Your task to perform on an android device: check android version Image 0: 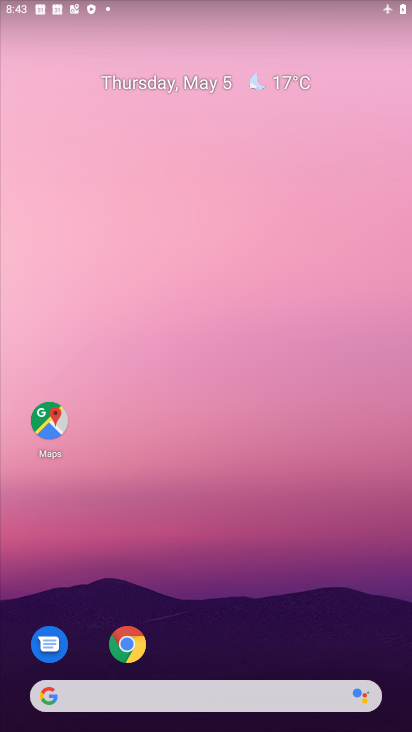
Step 0: drag from (196, 653) to (217, 149)
Your task to perform on an android device: check android version Image 1: 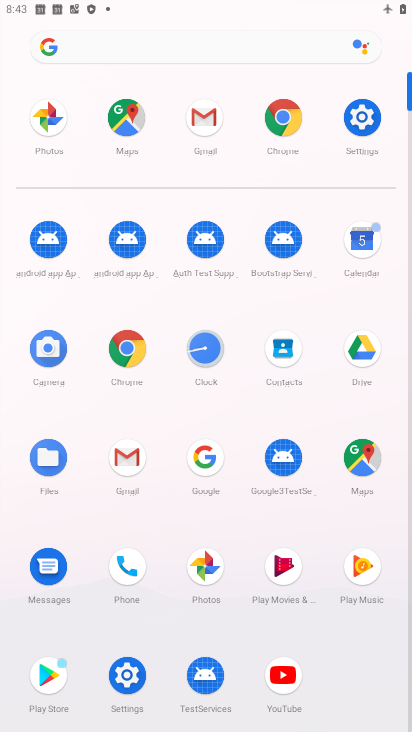
Step 1: click (128, 676)
Your task to perform on an android device: check android version Image 2: 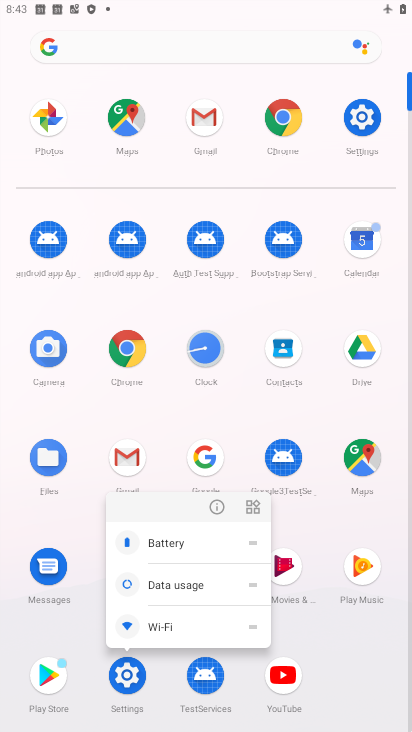
Step 2: click (209, 505)
Your task to perform on an android device: check android version Image 3: 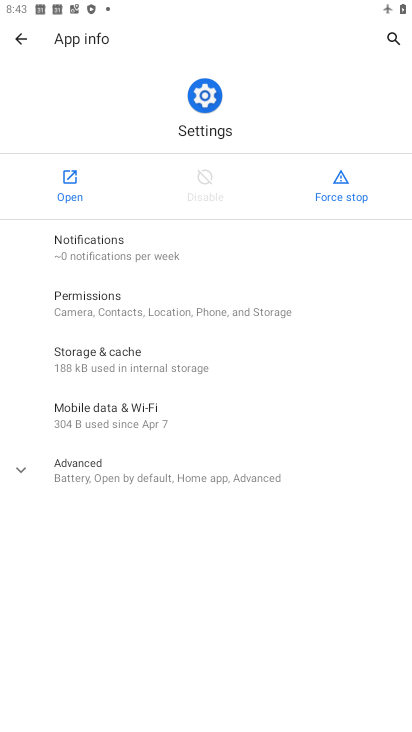
Step 3: click (68, 180)
Your task to perform on an android device: check android version Image 4: 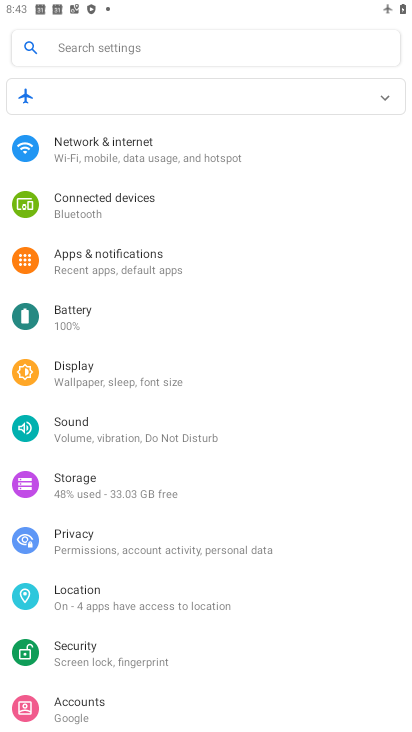
Step 4: drag from (194, 624) to (204, 237)
Your task to perform on an android device: check android version Image 5: 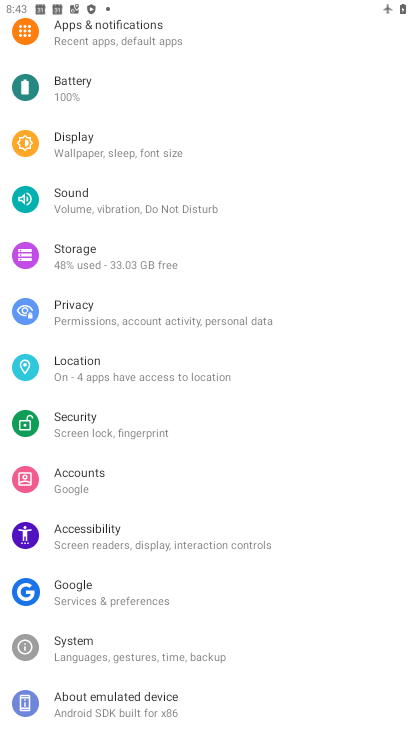
Step 5: drag from (174, 638) to (246, 257)
Your task to perform on an android device: check android version Image 6: 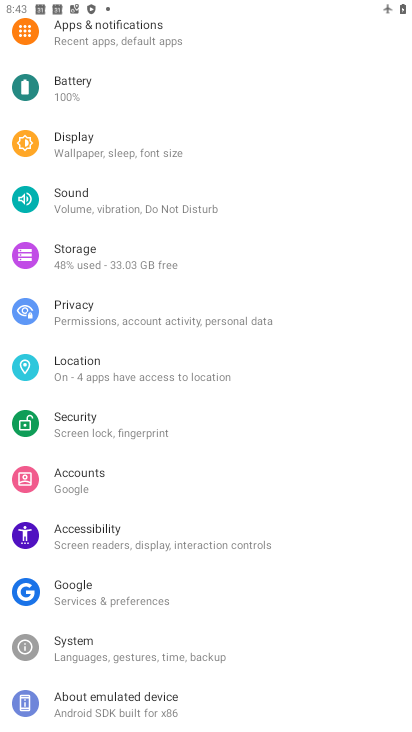
Step 6: click (144, 699)
Your task to perform on an android device: check android version Image 7: 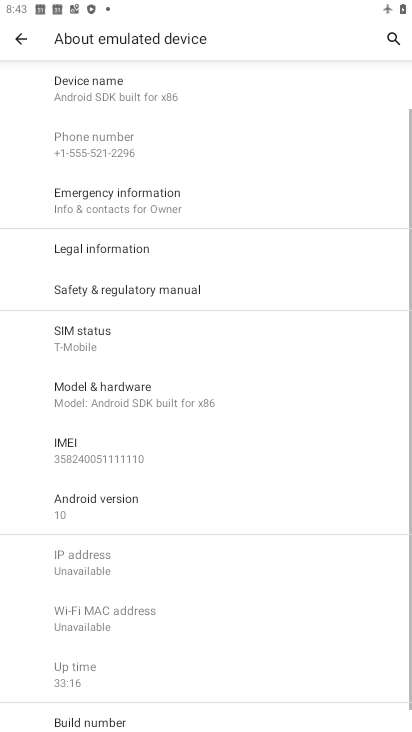
Step 7: drag from (176, 663) to (242, 340)
Your task to perform on an android device: check android version Image 8: 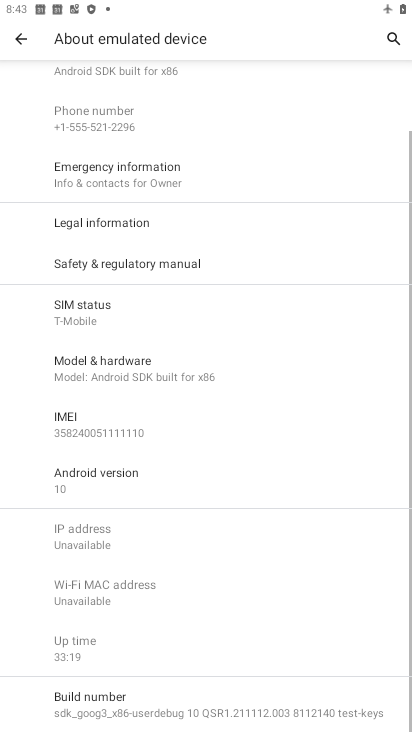
Step 8: click (170, 483)
Your task to perform on an android device: check android version Image 9: 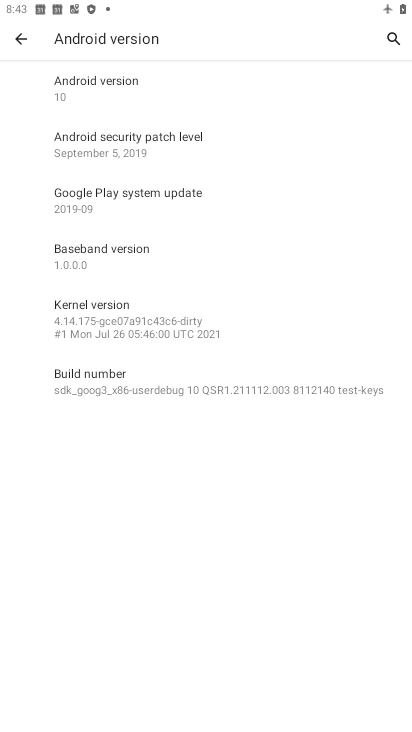
Step 9: click (219, 85)
Your task to perform on an android device: check android version Image 10: 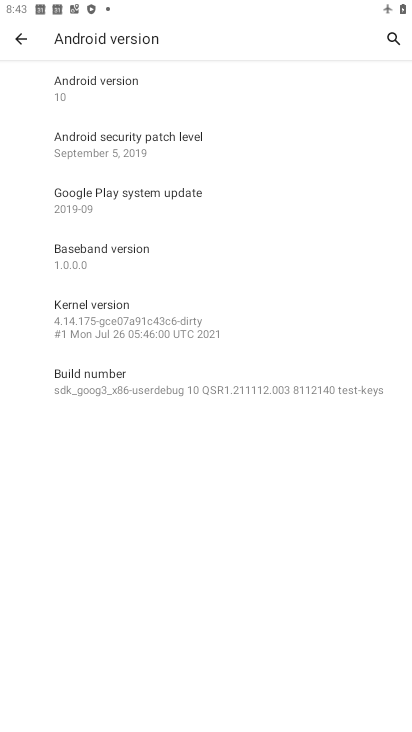
Step 10: task complete